Your task to perform on an android device: Open ESPN.com Image 0: 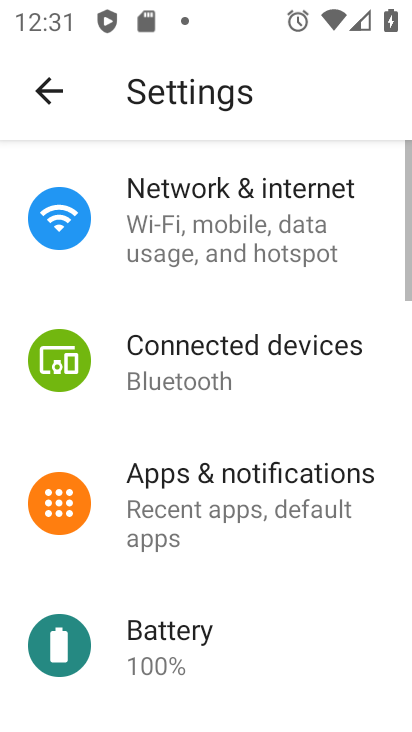
Step 0: press home button
Your task to perform on an android device: Open ESPN.com Image 1: 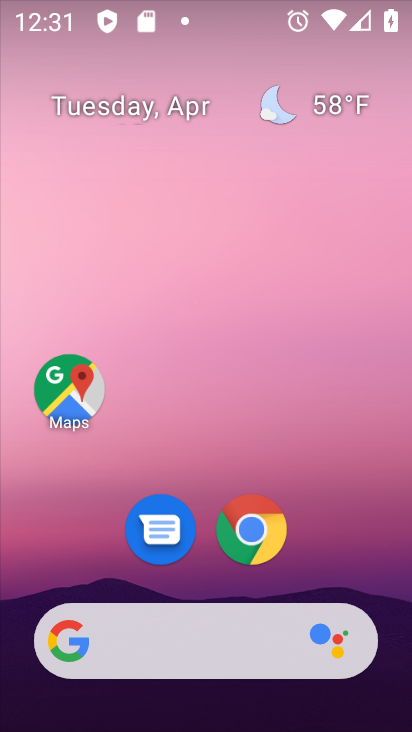
Step 1: drag from (389, 611) to (288, 104)
Your task to perform on an android device: Open ESPN.com Image 2: 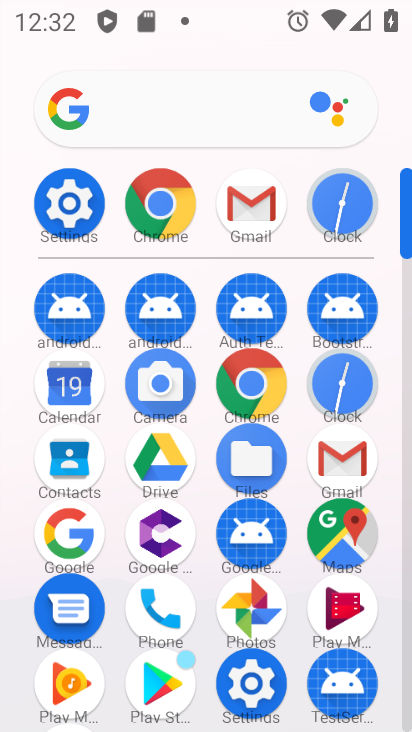
Step 2: click (231, 388)
Your task to perform on an android device: Open ESPN.com Image 3: 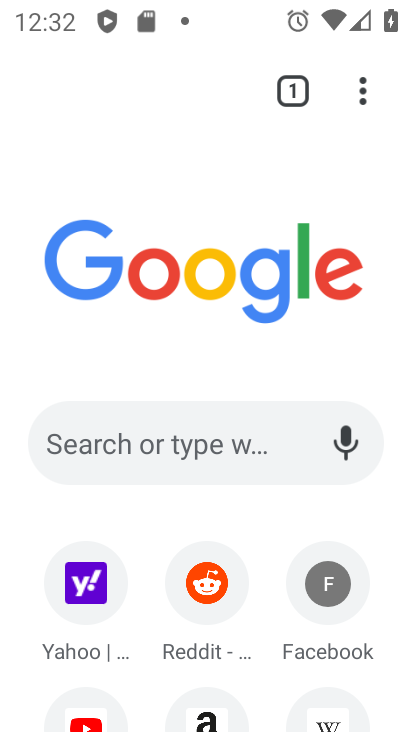
Step 3: drag from (269, 639) to (255, 226)
Your task to perform on an android device: Open ESPN.com Image 4: 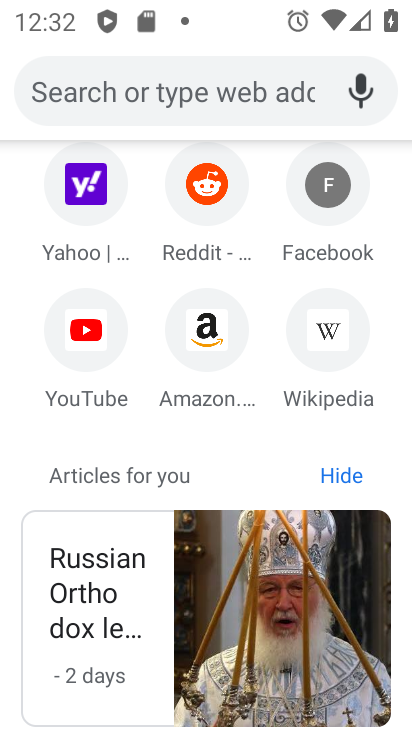
Step 4: click (183, 88)
Your task to perform on an android device: Open ESPN.com Image 5: 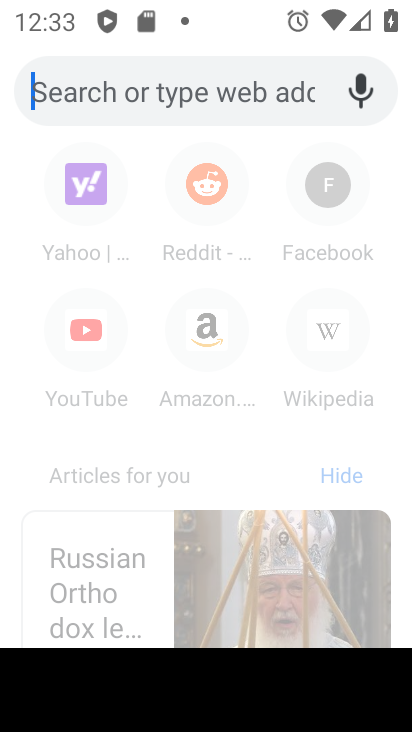
Step 5: type "espn.com"
Your task to perform on an android device: Open ESPN.com Image 6: 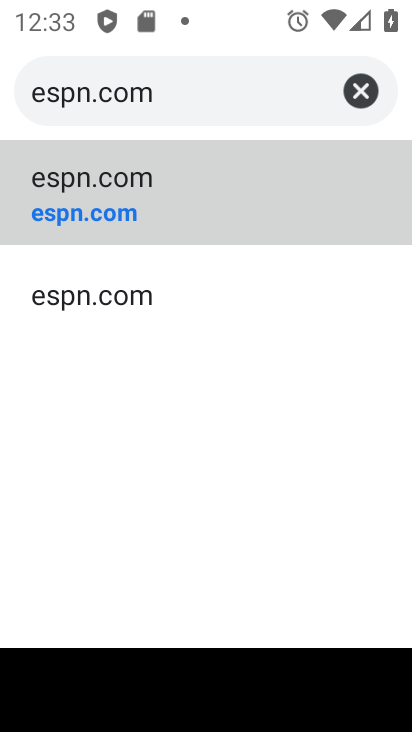
Step 6: click (251, 200)
Your task to perform on an android device: Open ESPN.com Image 7: 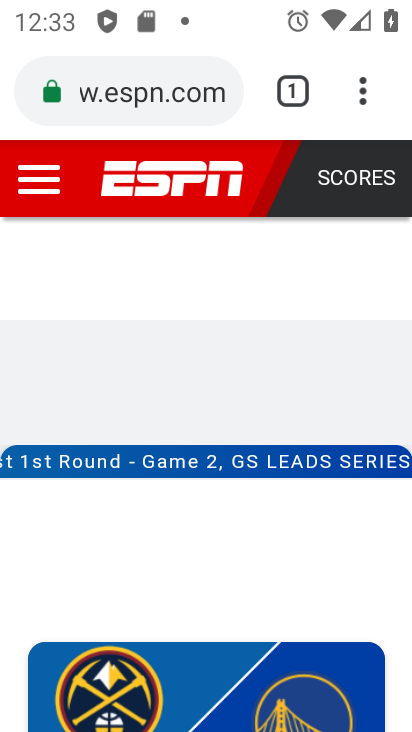
Step 7: task complete